Your task to perform on an android device: Turn off the flashlight Image 0: 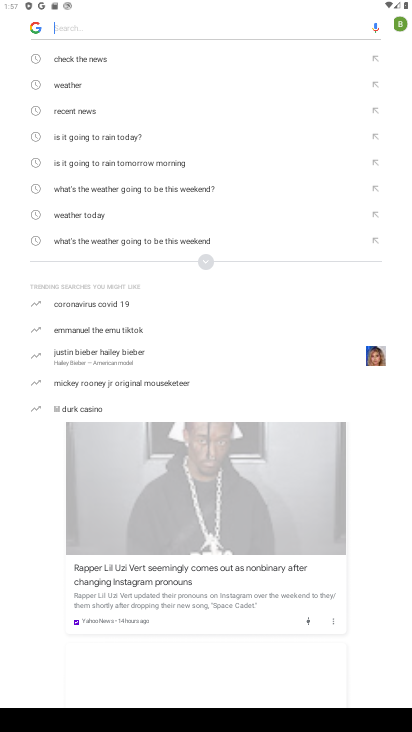
Step 0: press home button
Your task to perform on an android device: Turn off the flashlight Image 1: 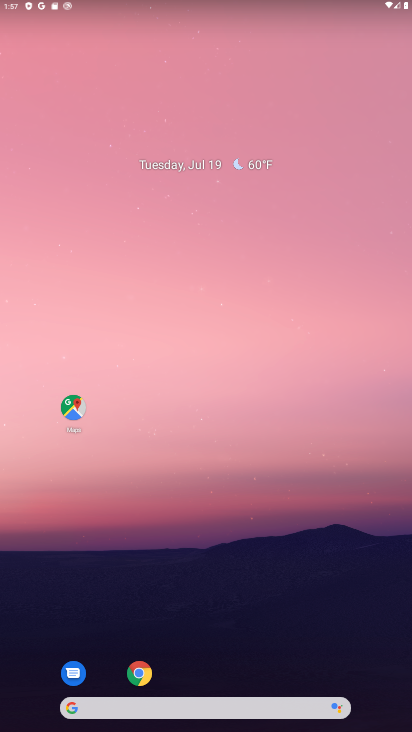
Step 1: drag from (306, 3) to (259, 253)
Your task to perform on an android device: Turn off the flashlight Image 2: 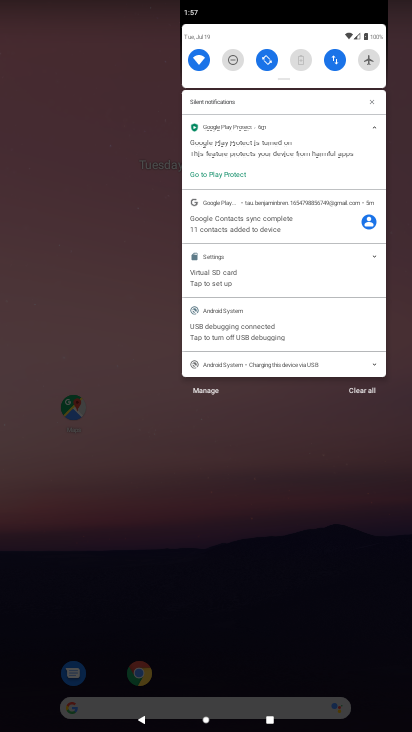
Step 2: drag from (286, 68) to (293, 486)
Your task to perform on an android device: Turn off the flashlight Image 3: 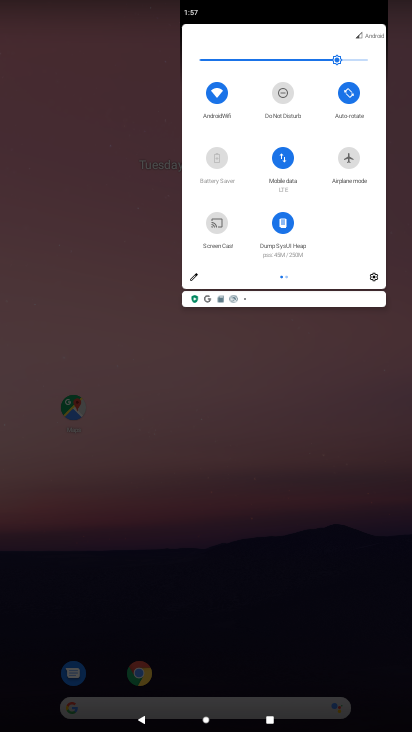
Step 3: click (198, 272)
Your task to perform on an android device: Turn off the flashlight Image 4: 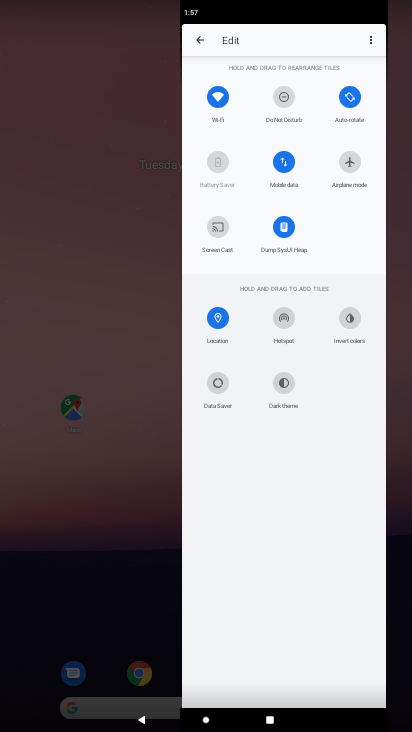
Step 4: task complete